Your task to perform on an android device: View the shopping cart on newegg. Add logitech g pro to the cart on newegg, then select checkout. Image 0: 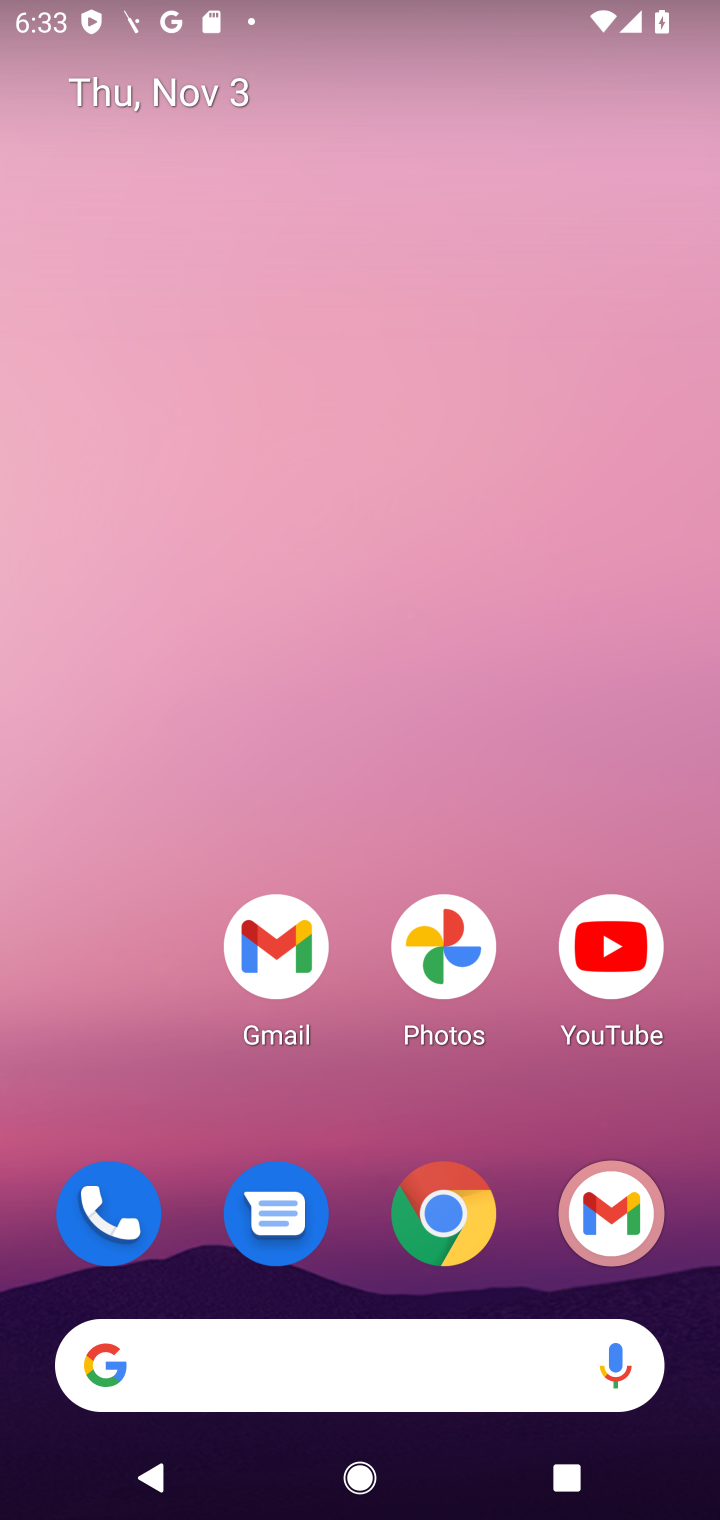
Step 0: click (437, 1207)
Your task to perform on an android device: View the shopping cart on newegg. Add logitech g pro to the cart on newegg, then select checkout. Image 1: 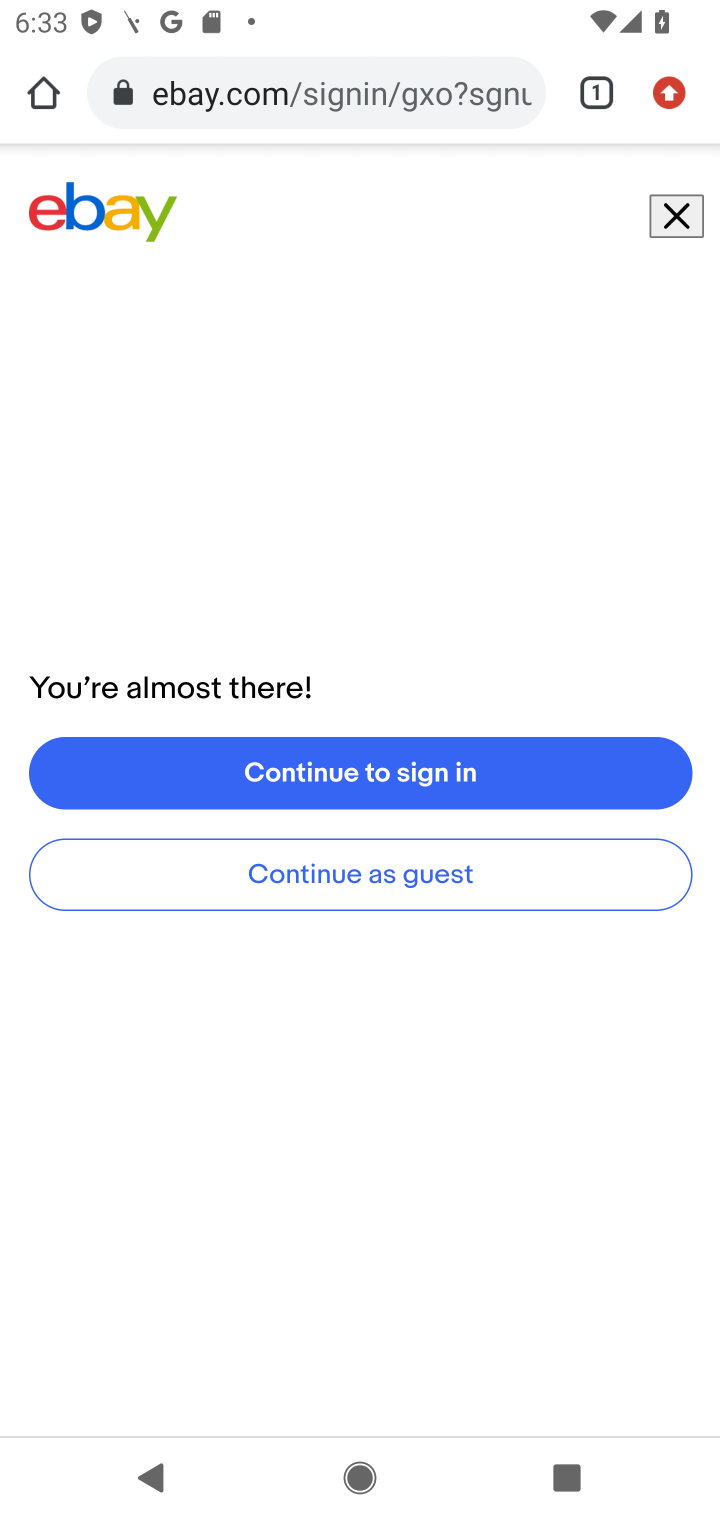
Step 1: click (265, 101)
Your task to perform on an android device: View the shopping cart on newegg. Add logitech g pro to the cart on newegg, then select checkout. Image 2: 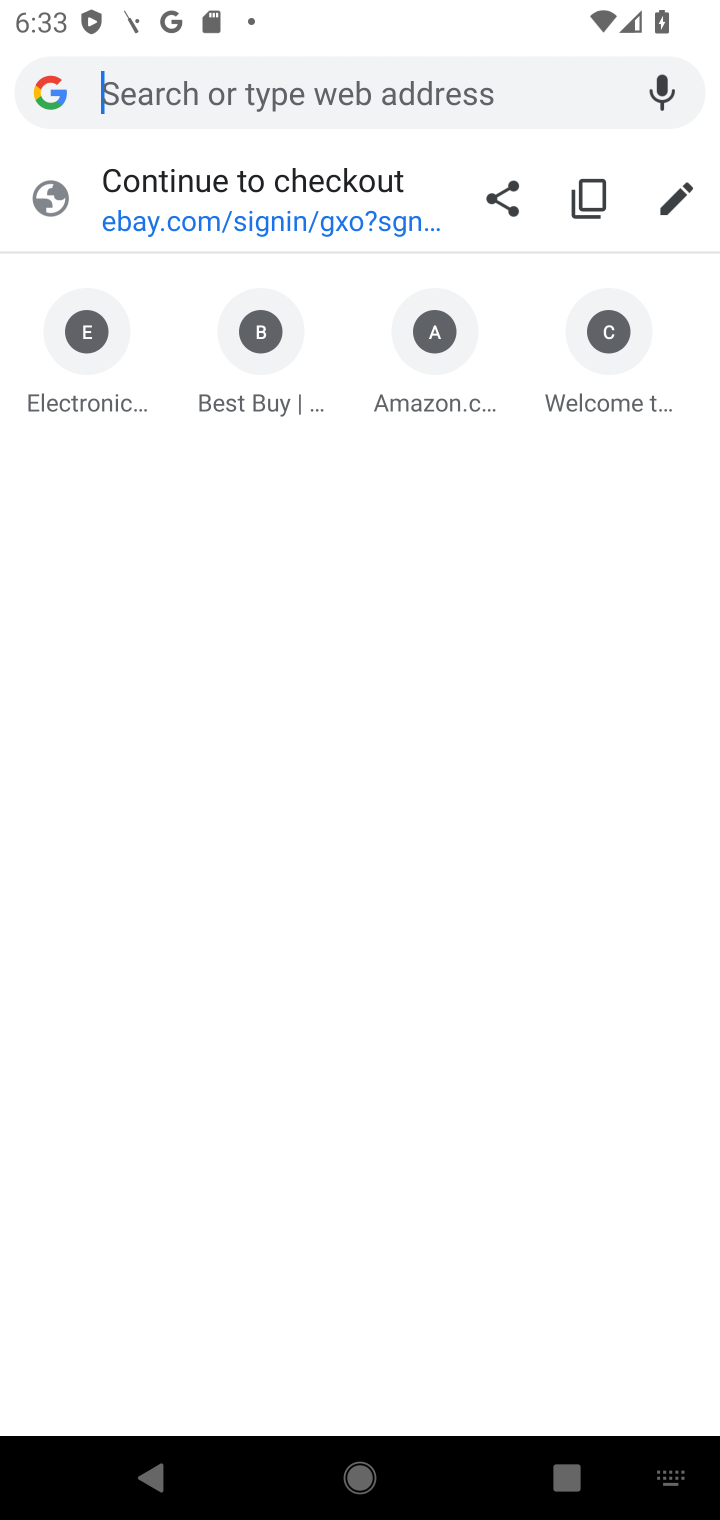
Step 2: type "newegg.com"
Your task to perform on an android device: View the shopping cart on newegg. Add logitech g pro to the cart on newegg, then select checkout. Image 3: 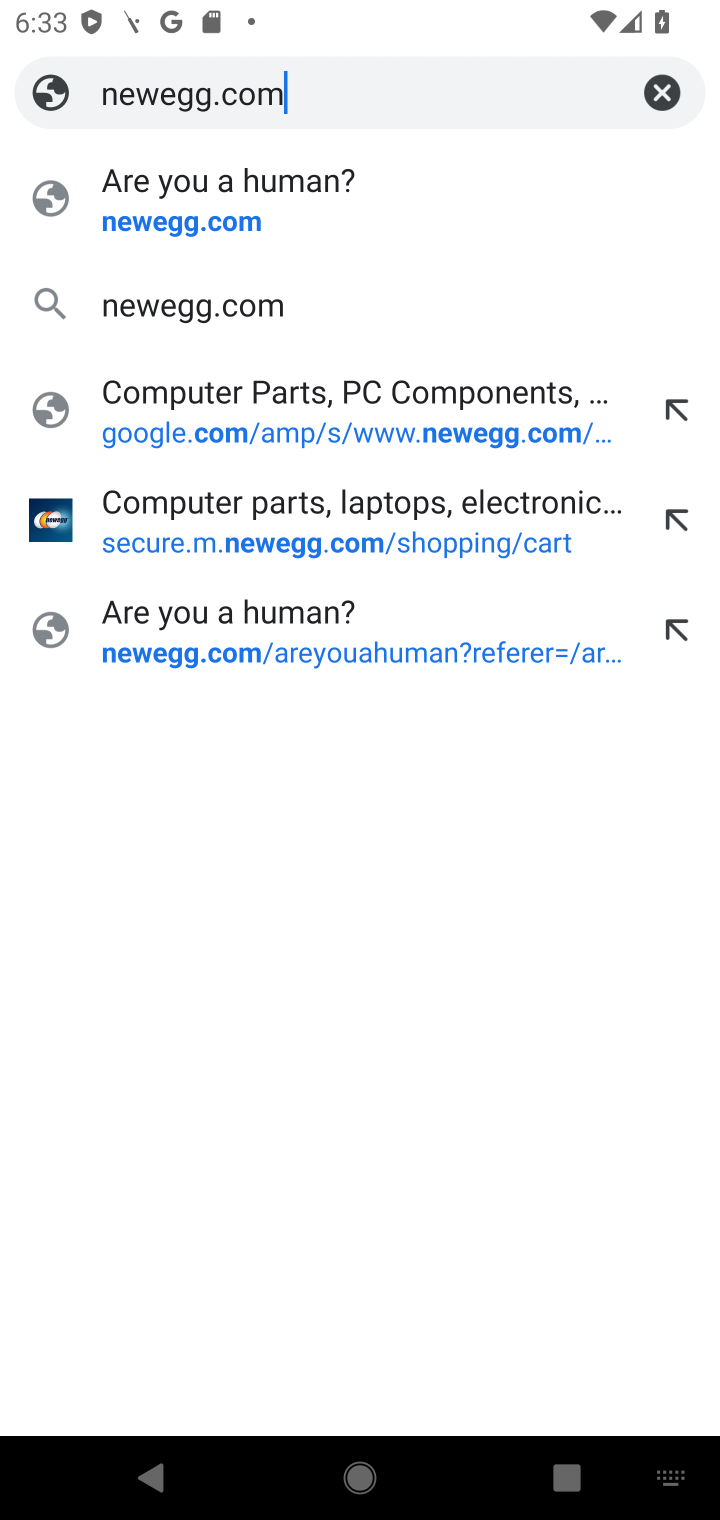
Step 3: click (164, 314)
Your task to perform on an android device: View the shopping cart on newegg. Add logitech g pro to the cart on newegg, then select checkout. Image 4: 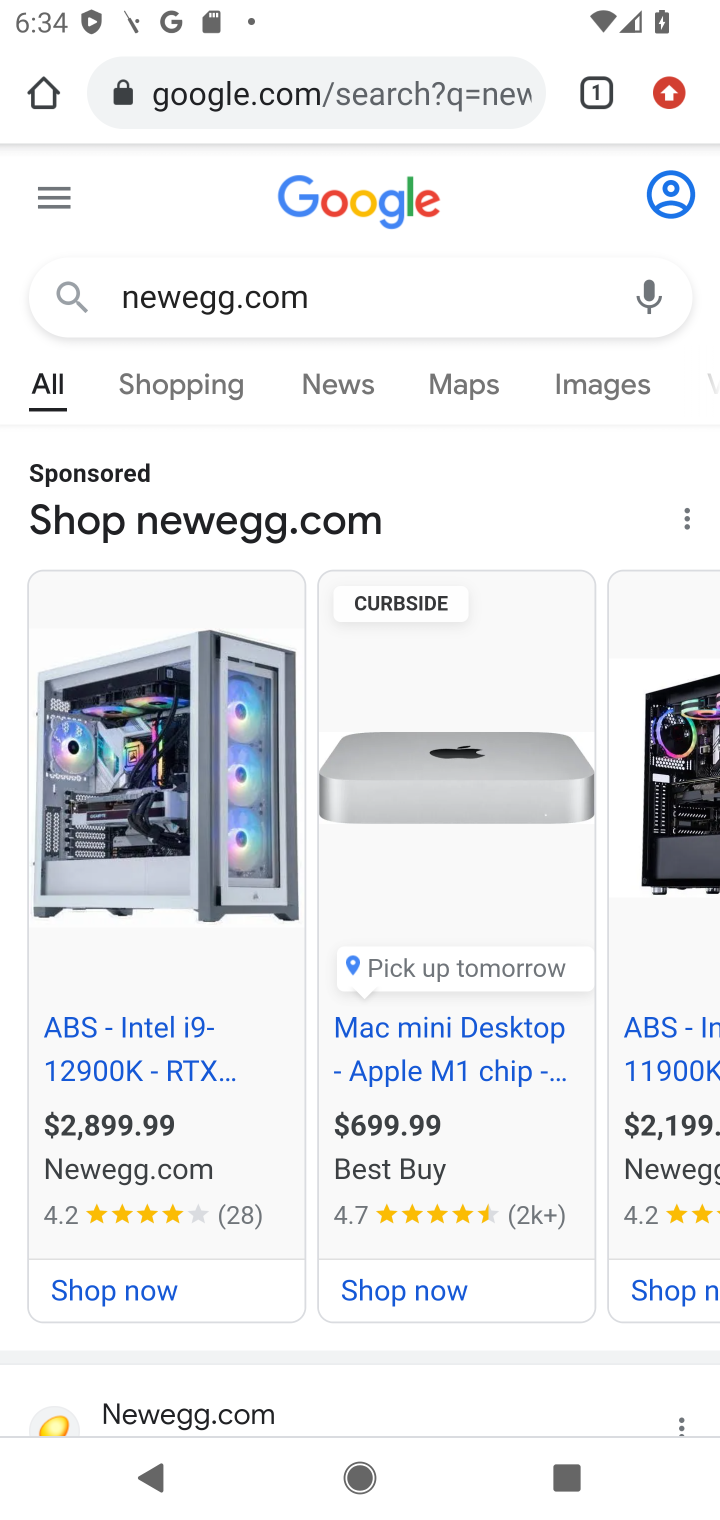
Step 4: drag from (299, 1077) to (349, 396)
Your task to perform on an android device: View the shopping cart on newegg. Add logitech g pro to the cart on newegg, then select checkout. Image 5: 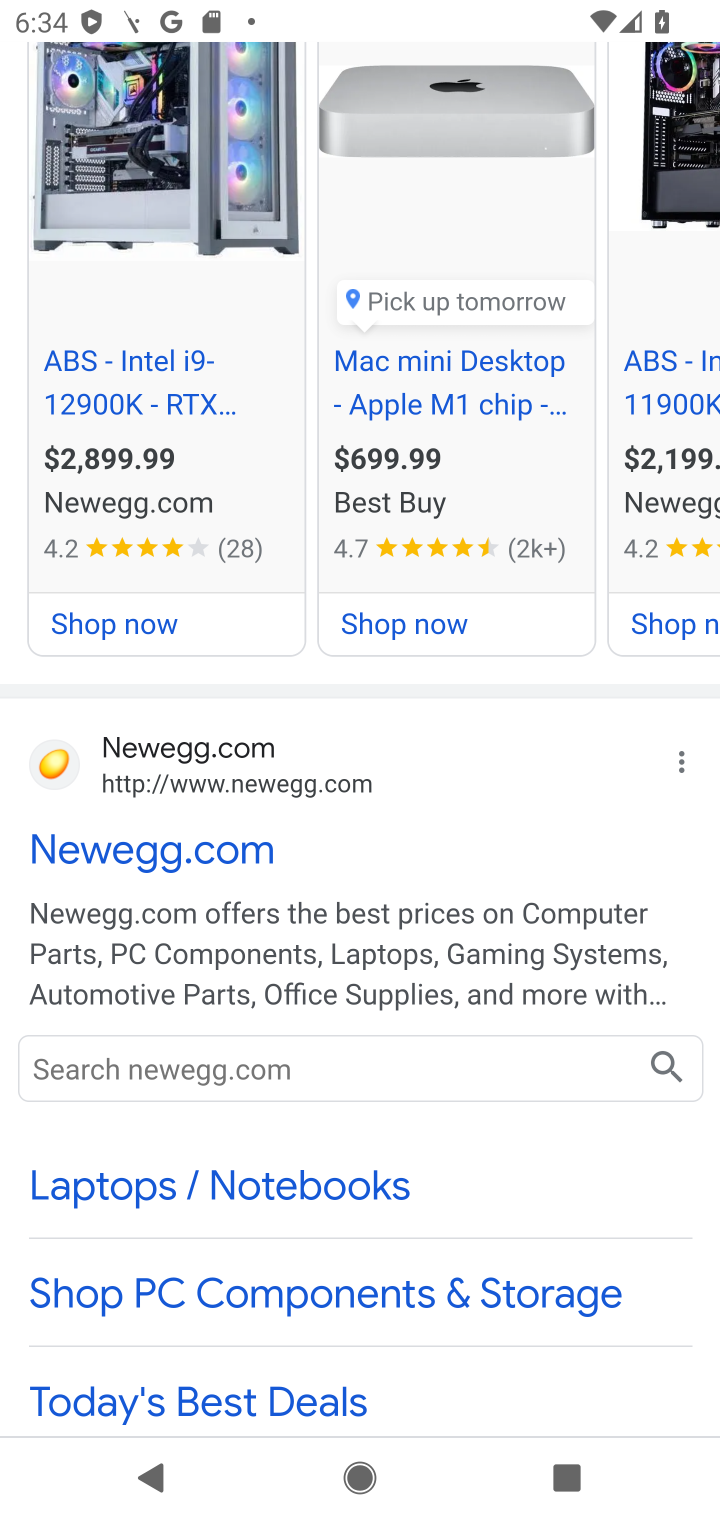
Step 5: click (160, 867)
Your task to perform on an android device: View the shopping cart on newegg. Add logitech g pro to the cart on newegg, then select checkout. Image 6: 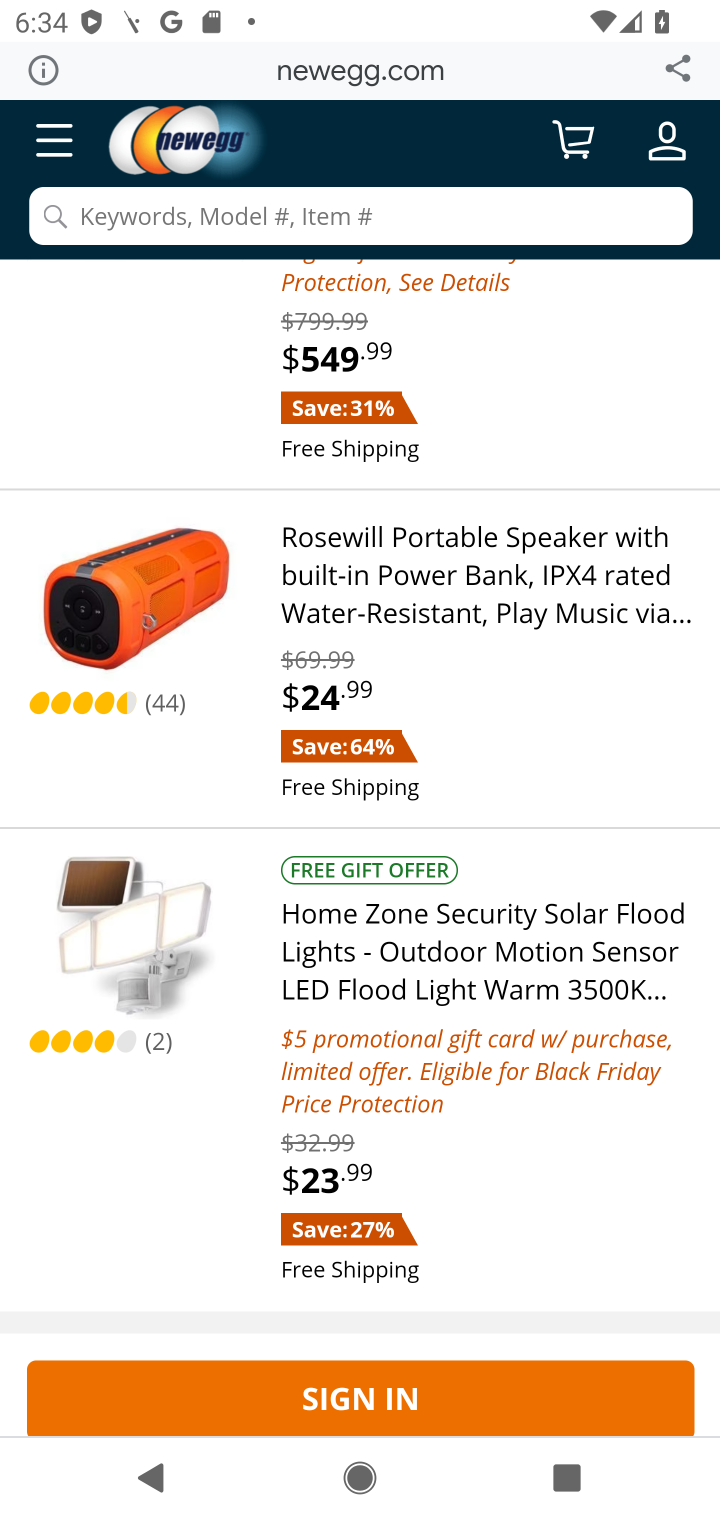
Step 6: click (271, 219)
Your task to perform on an android device: View the shopping cart on newegg. Add logitech g pro to the cart on newegg, then select checkout. Image 7: 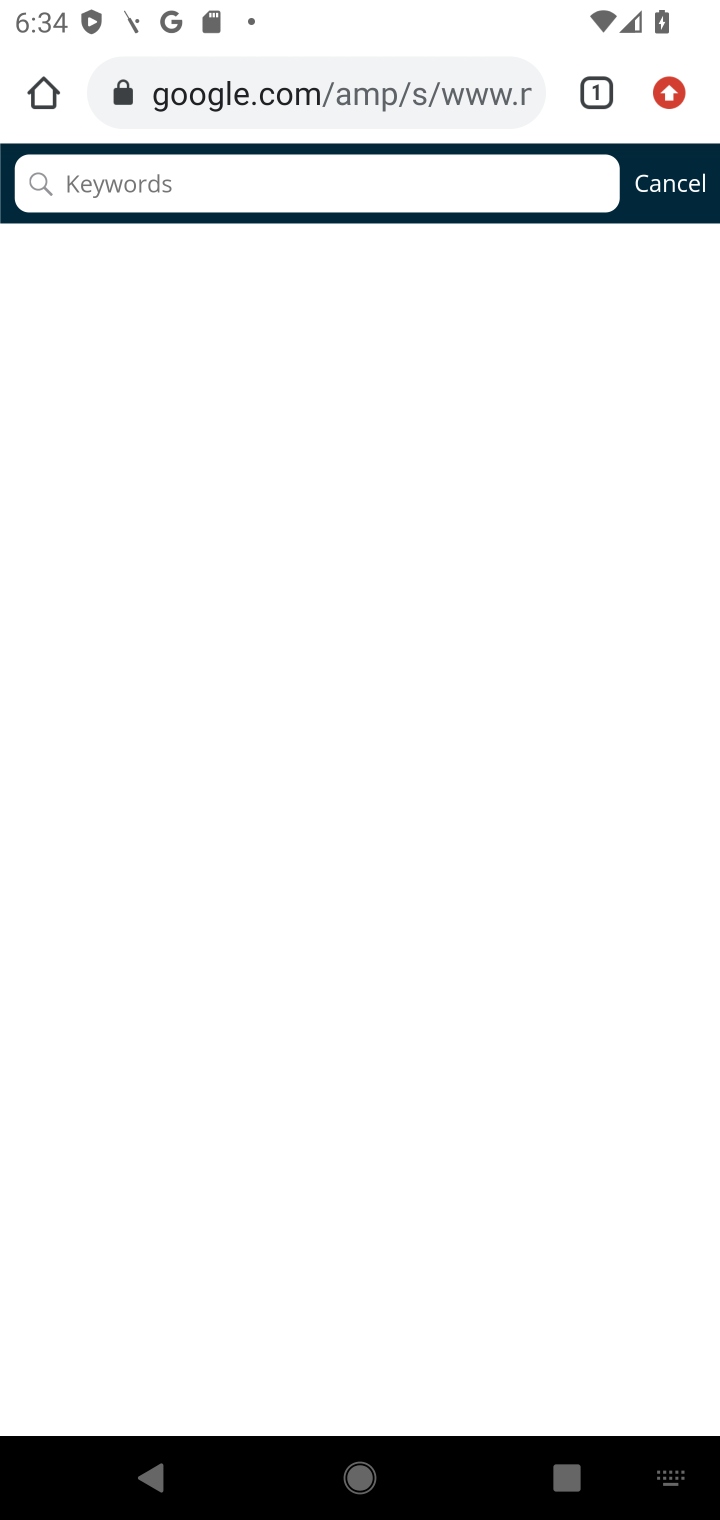
Step 7: type " logitech g pro"
Your task to perform on an android device: View the shopping cart on newegg. Add logitech g pro to the cart on newegg, then select checkout. Image 8: 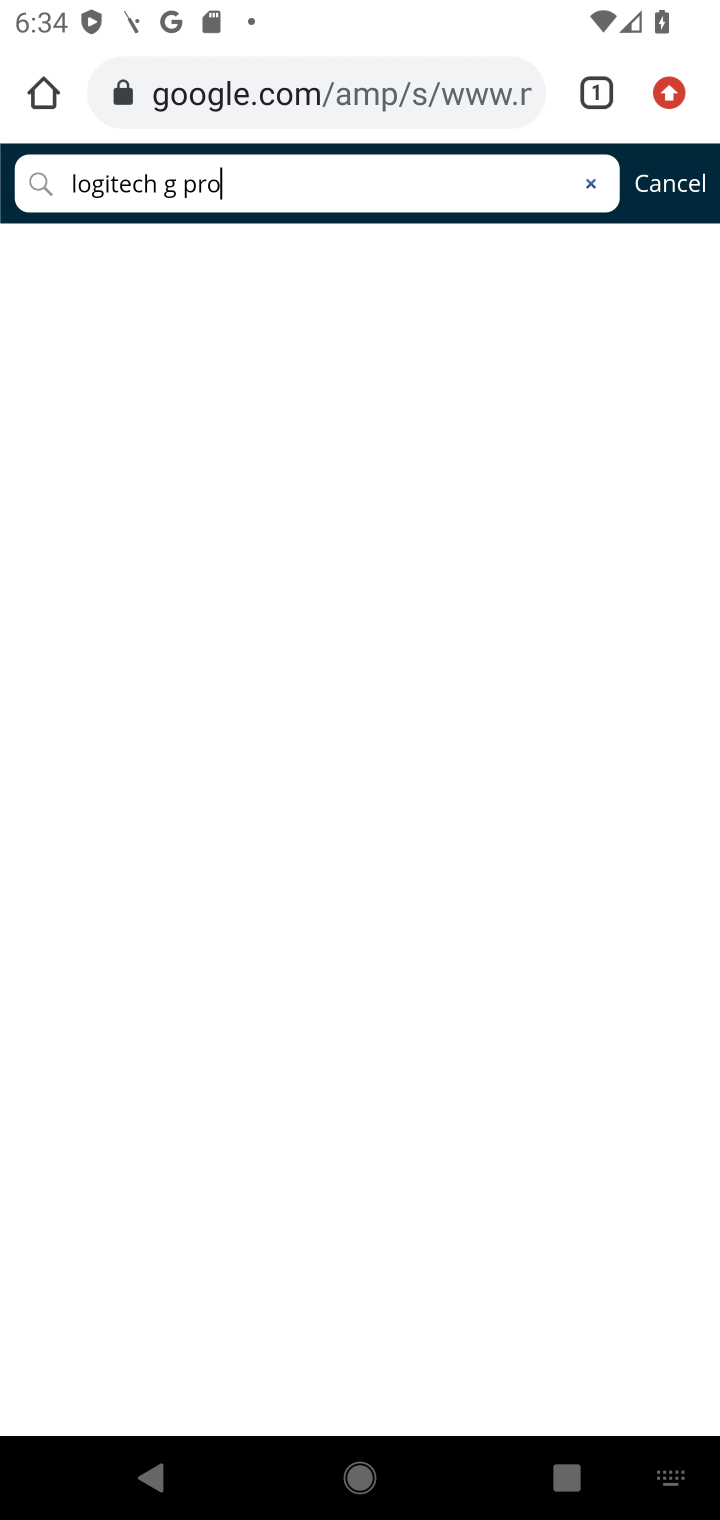
Step 8: click (44, 184)
Your task to perform on an android device: View the shopping cart on newegg. Add logitech g pro to the cart on newegg, then select checkout. Image 9: 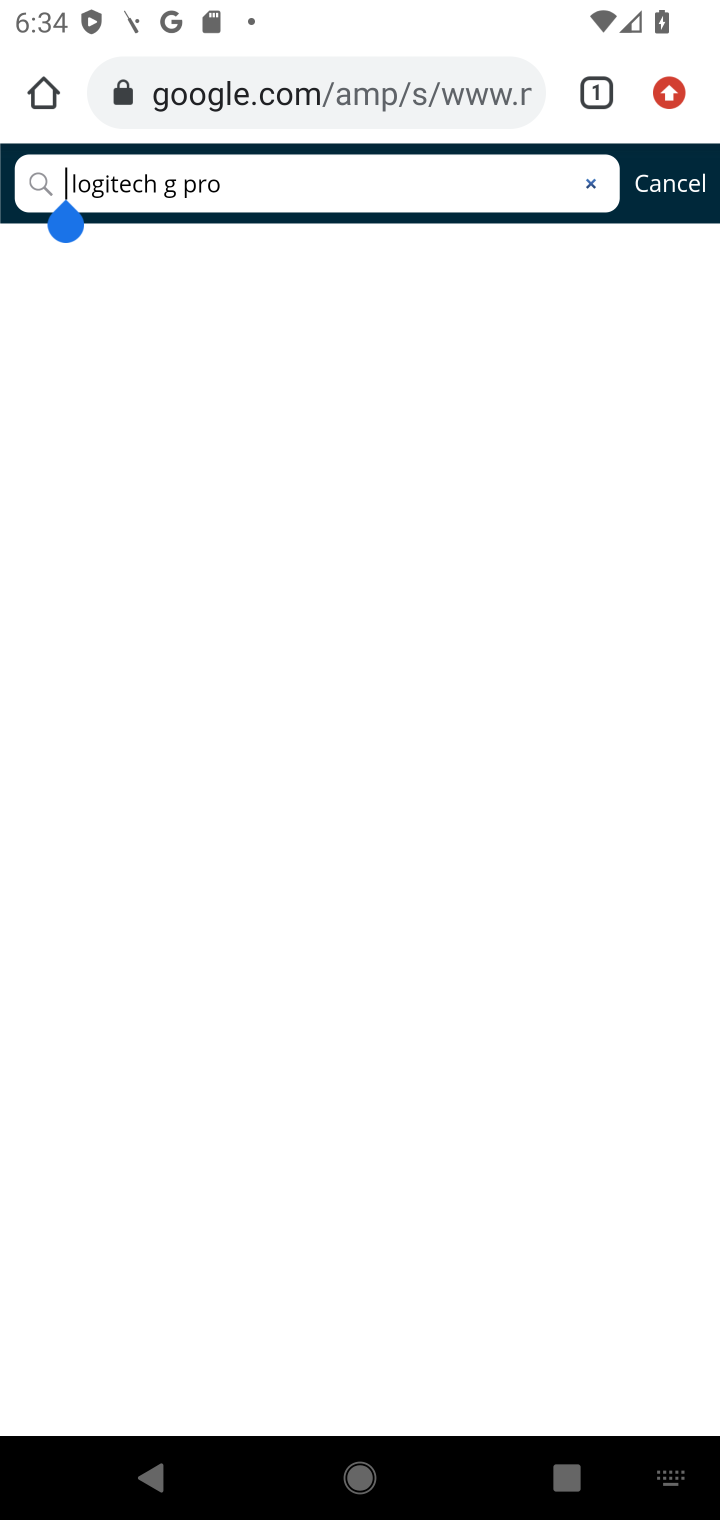
Step 9: task complete